Your task to perform on an android device: Search for pizza restaurants on Maps Image 0: 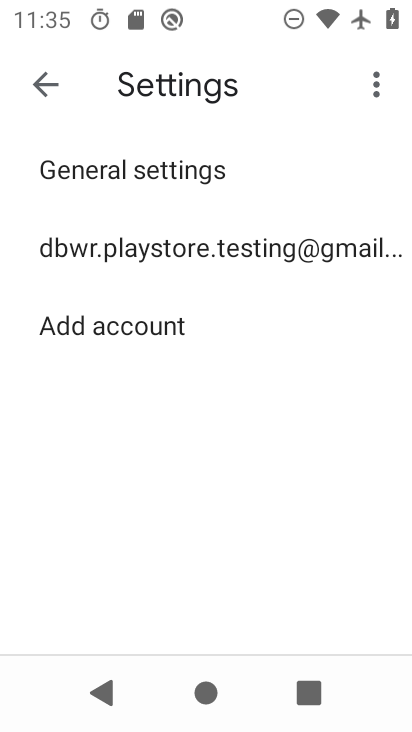
Step 0: press home button
Your task to perform on an android device: Search for pizza restaurants on Maps Image 1: 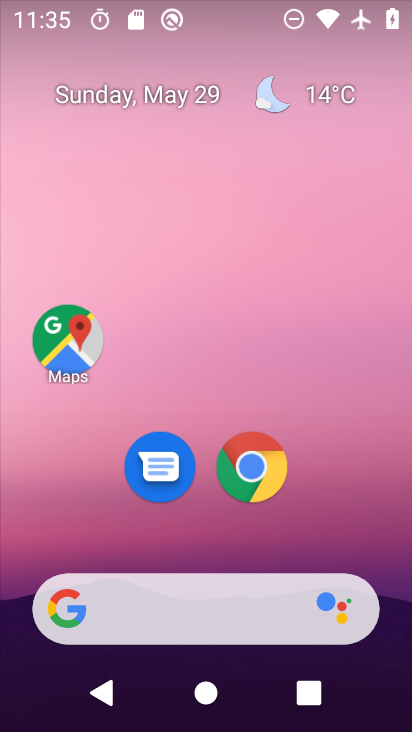
Step 1: click (72, 350)
Your task to perform on an android device: Search for pizza restaurants on Maps Image 2: 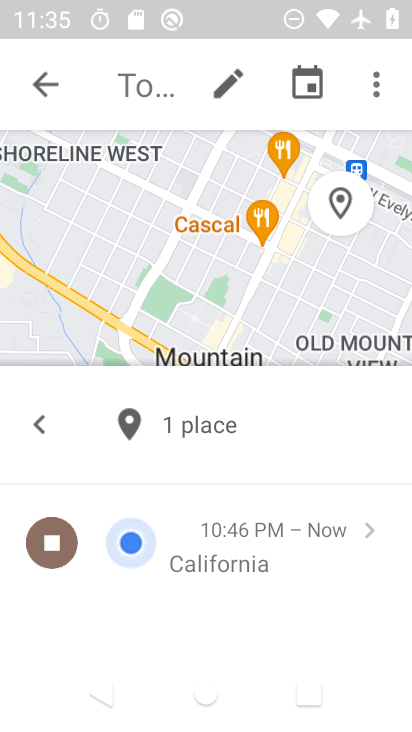
Step 2: click (46, 84)
Your task to perform on an android device: Search for pizza restaurants on Maps Image 3: 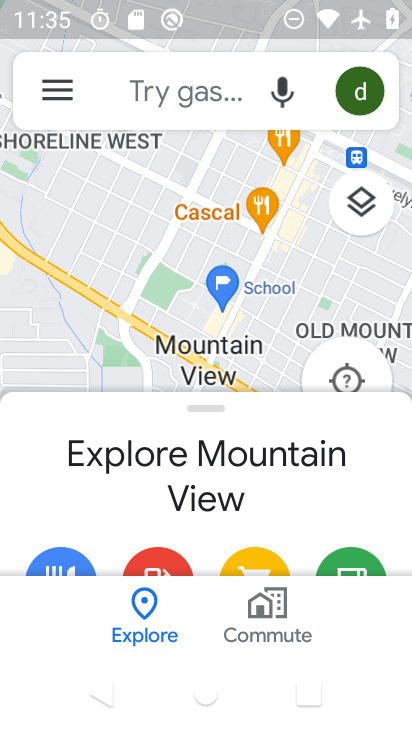
Step 3: click (186, 72)
Your task to perform on an android device: Search for pizza restaurants on Maps Image 4: 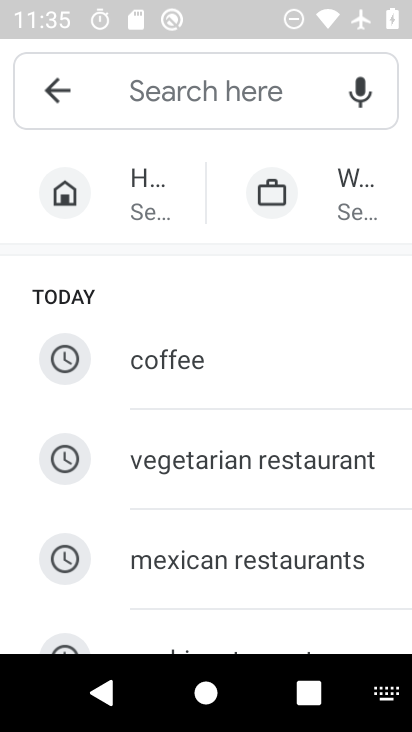
Step 4: type "pizza restaurants"
Your task to perform on an android device: Search for pizza restaurants on Maps Image 5: 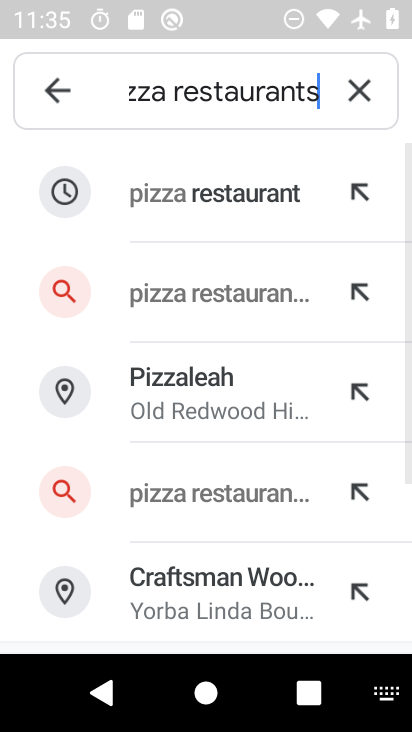
Step 5: click (268, 186)
Your task to perform on an android device: Search for pizza restaurants on Maps Image 6: 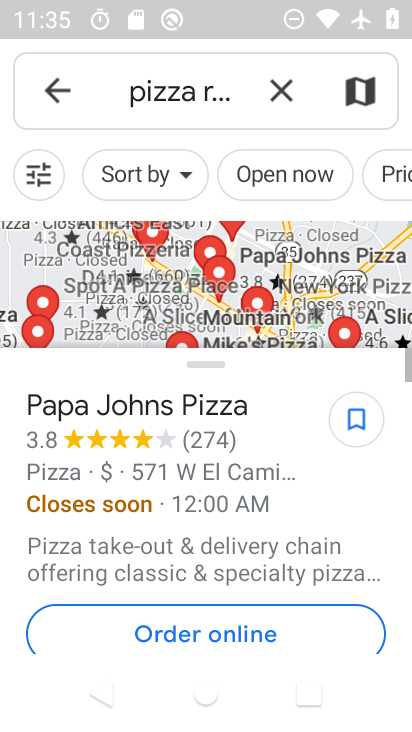
Step 6: task complete